Your task to perform on an android device: turn on airplane mode Image 0: 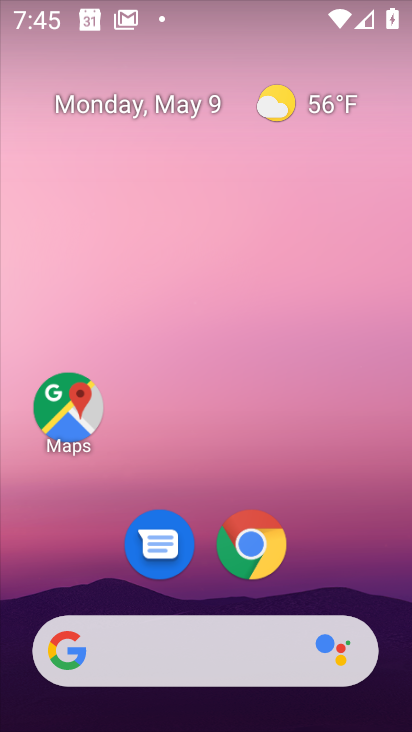
Step 0: drag from (338, 535) to (265, 75)
Your task to perform on an android device: turn on airplane mode Image 1: 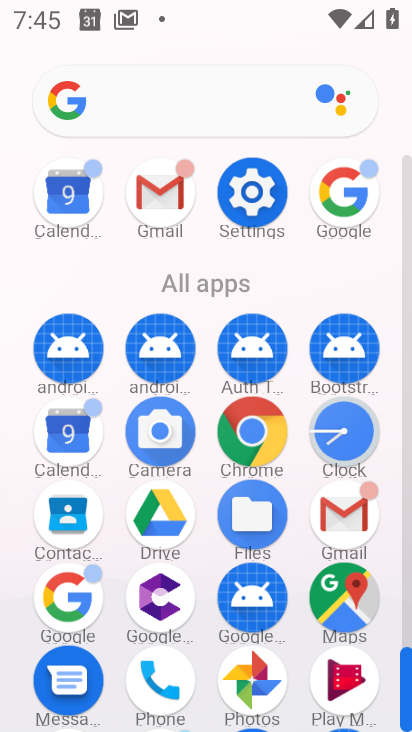
Step 1: click (251, 189)
Your task to perform on an android device: turn on airplane mode Image 2: 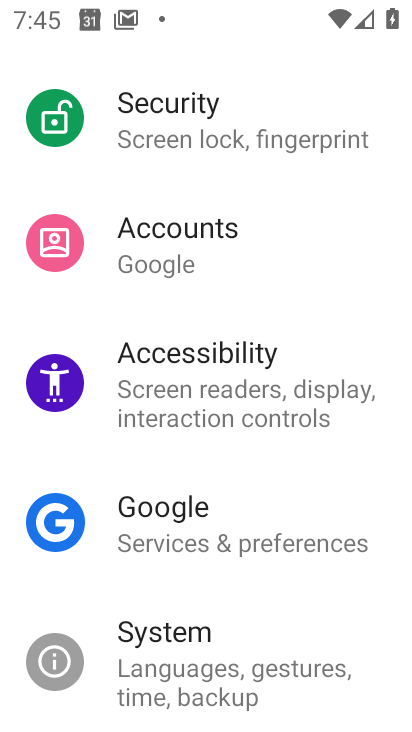
Step 2: drag from (247, 460) to (258, 568)
Your task to perform on an android device: turn on airplane mode Image 3: 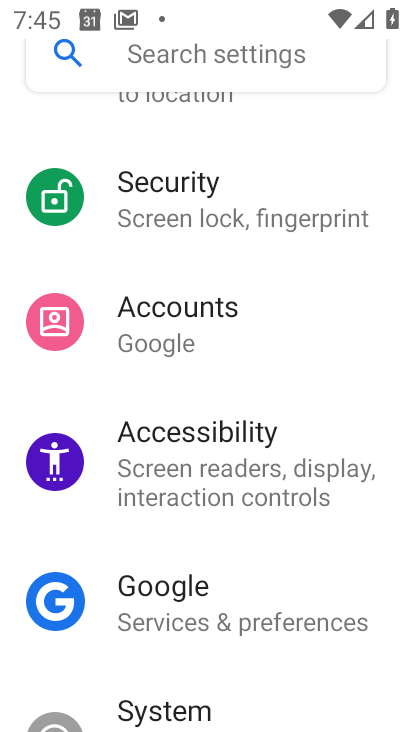
Step 3: drag from (257, 273) to (307, 505)
Your task to perform on an android device: turn on airplane mode Image 4: 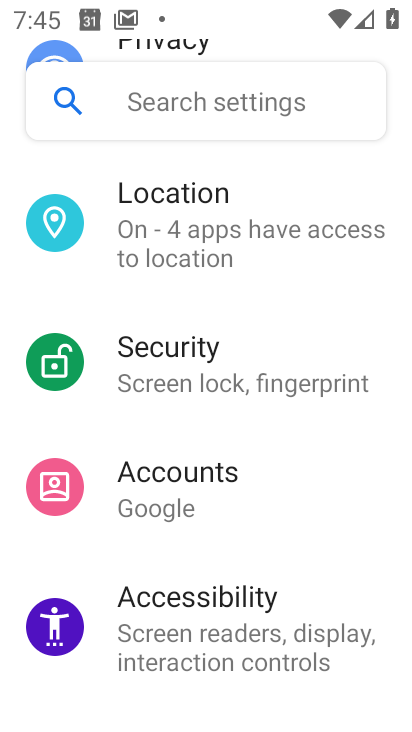
Step 4: drag from (287, 294) to (350, 485)
Your task to perform on an android device: turn on airplane mode Image 5: 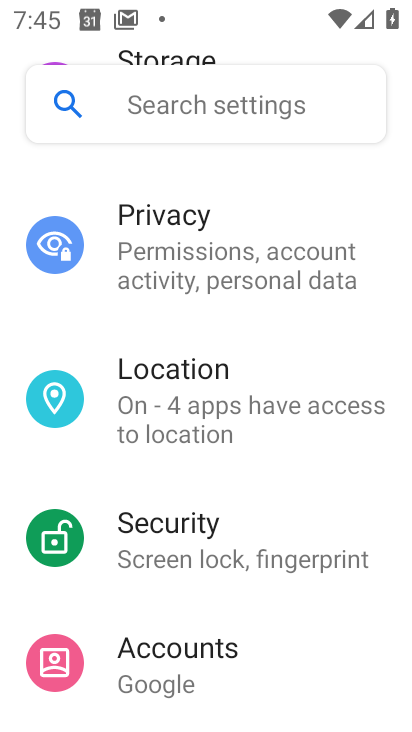
Step 5: drag from (256, 212) to (285, 364)
Your task to perform on an android device: turn on airplane mode Image 6: 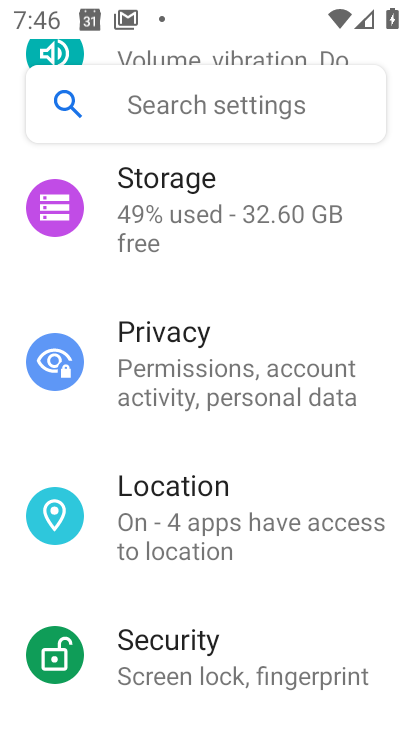
Step 6: drag from (213, 247) to (261, 377)
Your task to perform on an android device: turn on airplane mode Image 7: 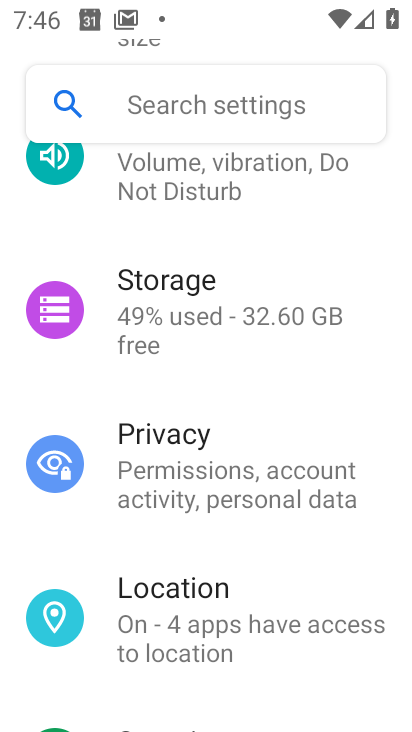
Step 7: drag from (228, 225) to (289, 389)
Your task to perform on an android device: turn on airplane mode Image 8: 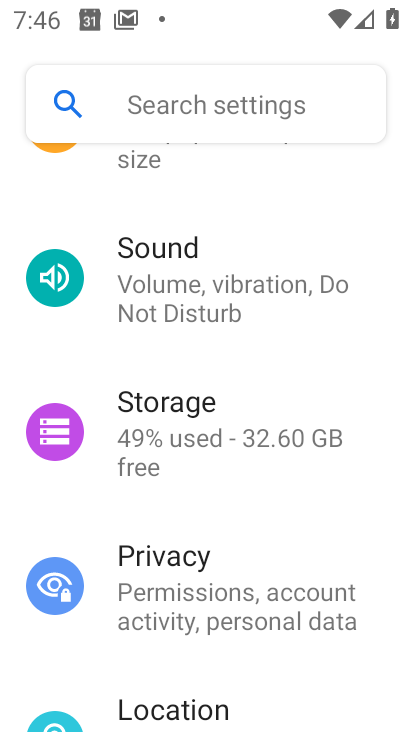
Step 8: drag from (217, 204) to (249, 376)
Your task to perform on an android device: turn on airplane mode Image 9: 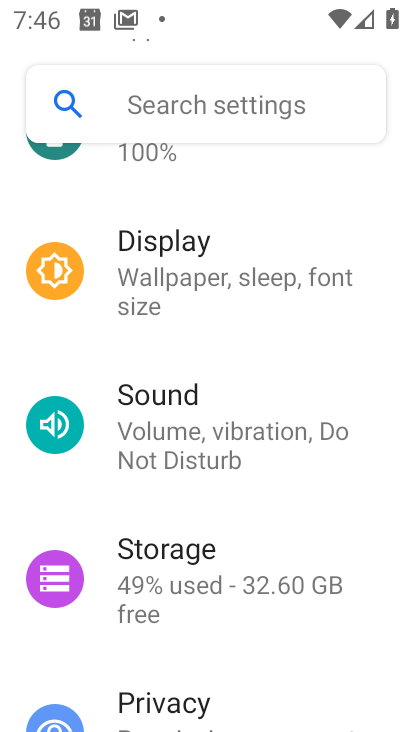
Step 9: drag from (237, 214) to (269, 377)
Your task to perform on an android device: turn on airplane mode Image 10: 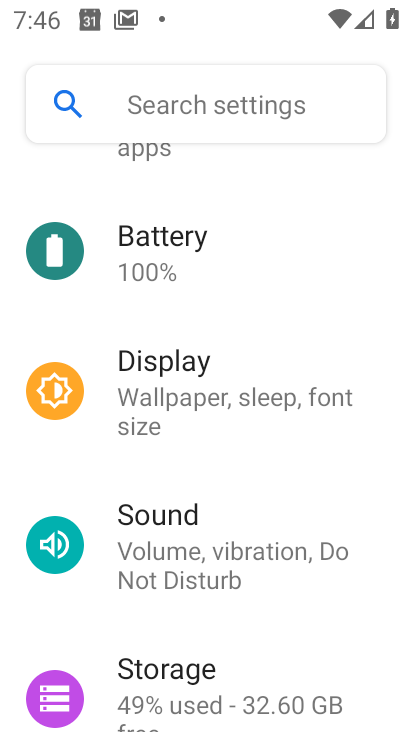
Step 10: drag from (233, 217) to (267, 379)
Your task to perform on an android device: turn on airplane mode Image 11: 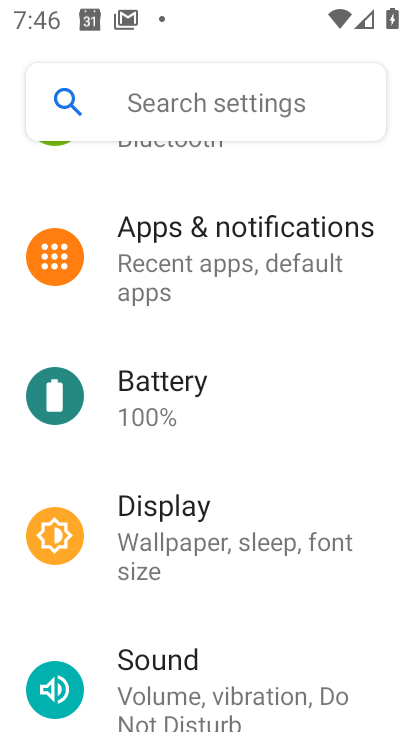
Step 11: drag from (221, 195) to (256, 384)
Your task to perform on an android device: turn on airplane mode Image 12: 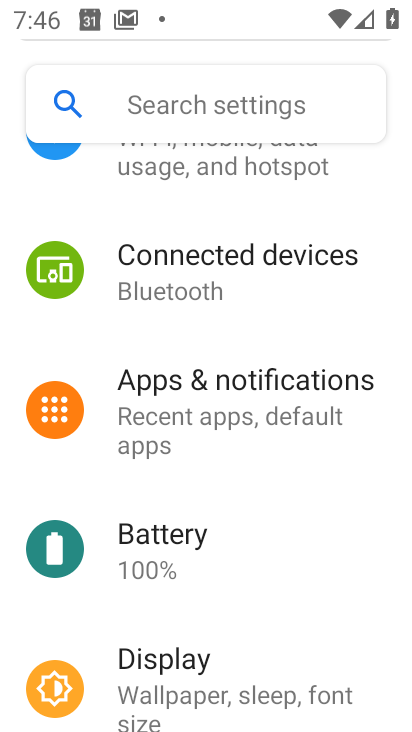
Step 12: drag from (205, 208) to (246, 389)
Your task to perform on an android device: turn on airplane mode Image 13: 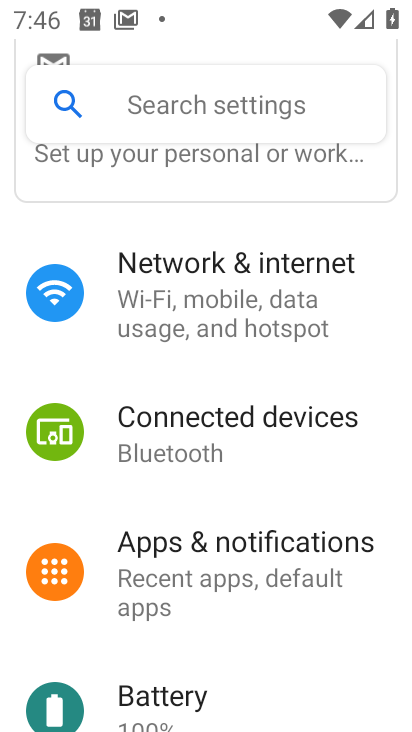
Step 13: click (187, 263)
Your task to perform on an android device: turn on airplane mode Image 14: 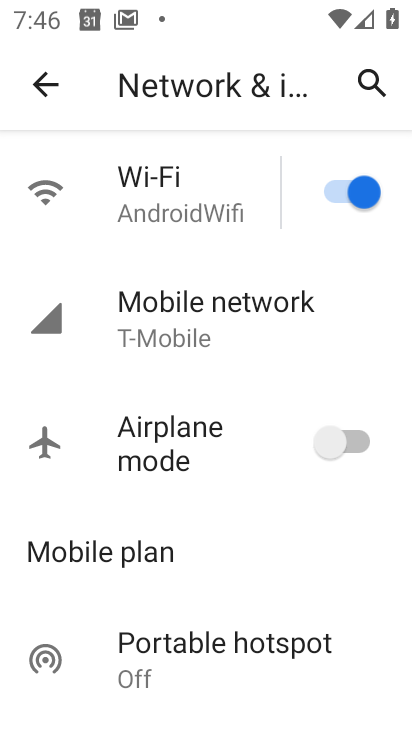
Step 14: click (330, 438)
Your task to perform on an android device: turn on airplane mode Image 15: 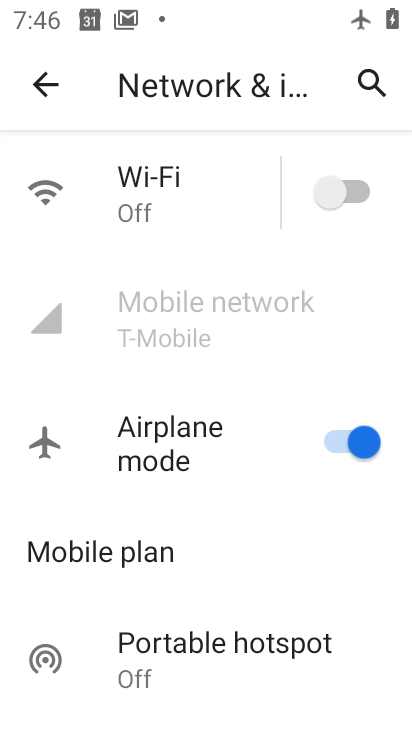
Step 15: task complete